Your task to perform on an android device: open sync settings in chrome Image 0: 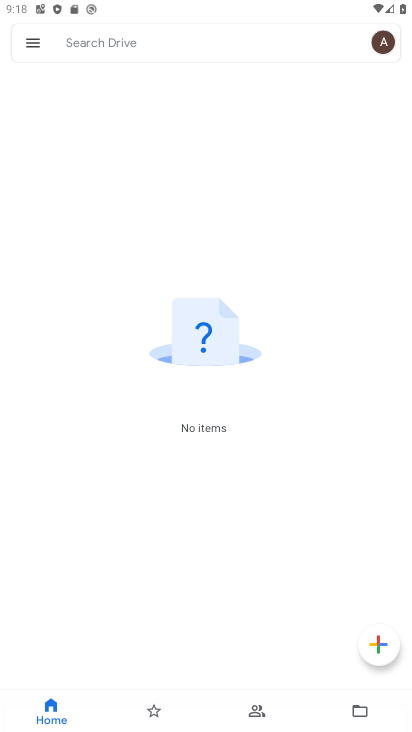
Step 0: press home button
Your task to perform on an android device: open sync settings in chrome Image 1: 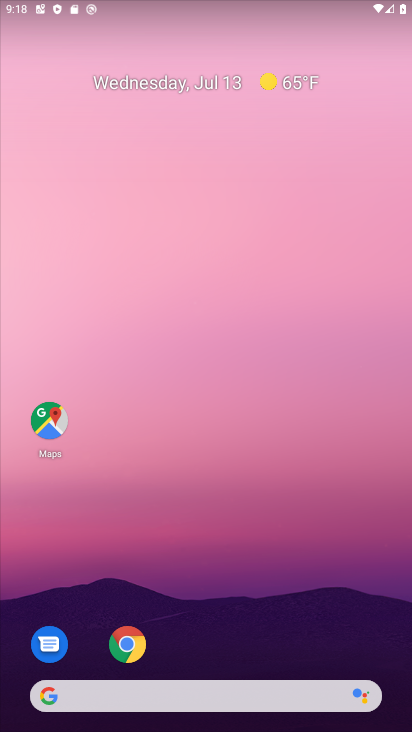
Step 1: drag from (297, 598) to (311, 0)
Your task to perform on an android device: open sync settings in chrome Image 2: 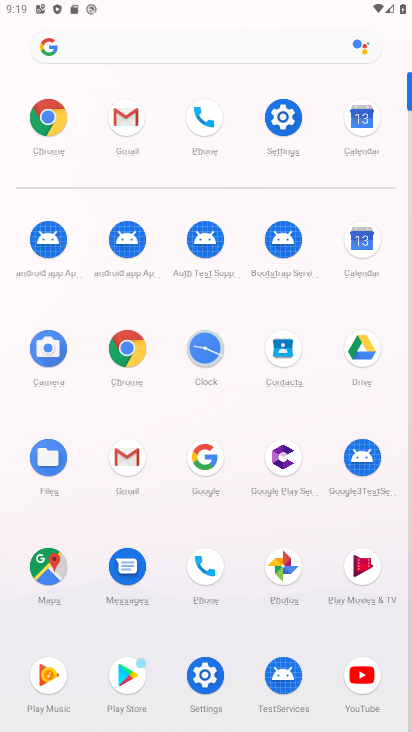
Step 2: click (36, 126)
Your task to perform on an android device: open sync settings in chrome Image 3: 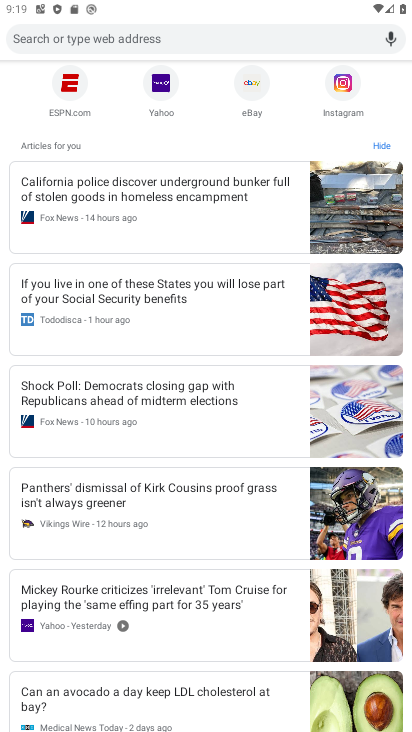
Step 3: drag from (281, 278) to (274, 662)
Your task to perform on an android device: open sync settings in chrome Image 4: 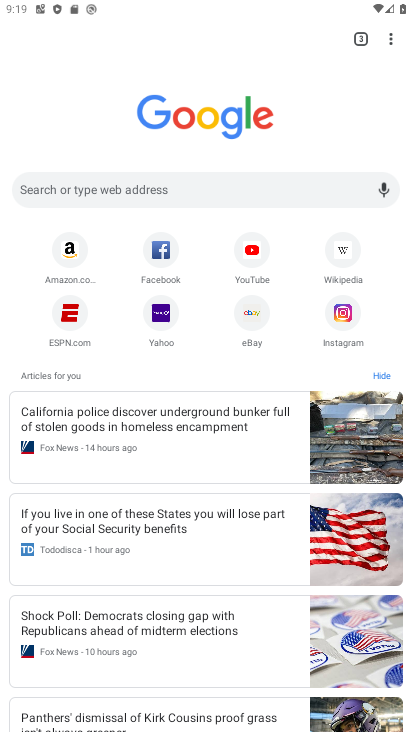
Step 4: drag from (396, 38) to (251, 340)
Your task to perform on an android device: open sync settings in chrome Image 5: 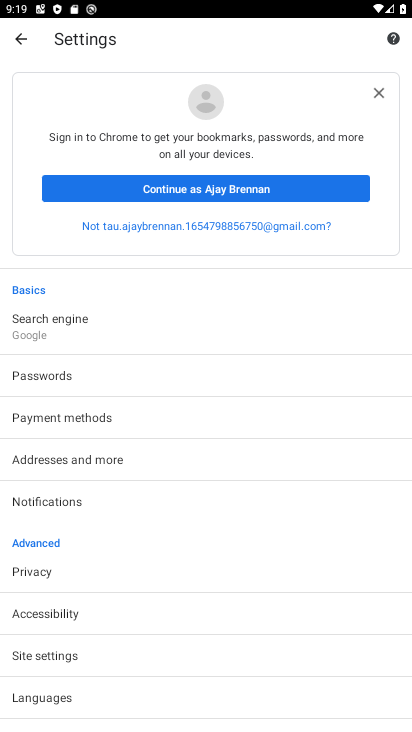
Step 5: click (84, 655)
Your task to perform on an android device: open sync settings in chrome Image 6: 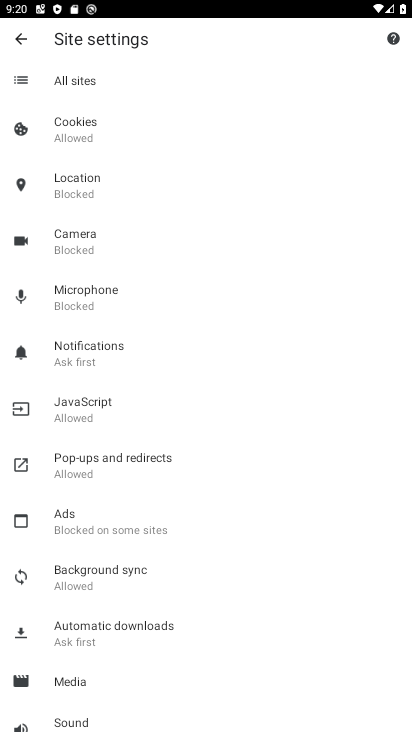
Step 6: click (112, 576)
Your task to perform on an android device: open sync settings in chrome Image 7: 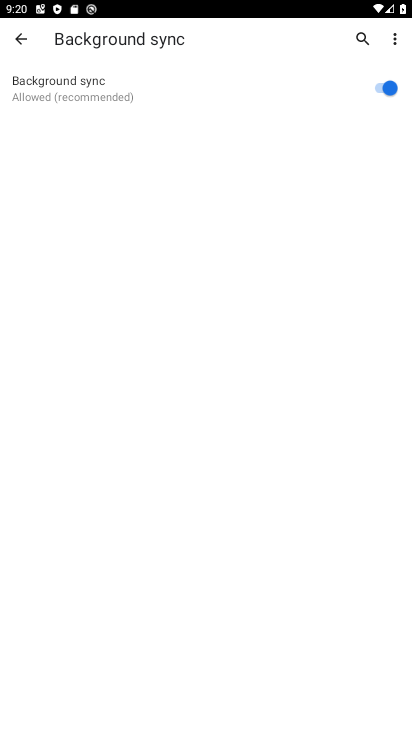
Step 7: task complete